Your task to perform on an android device: clear all cookies in the chrome app Image 0: 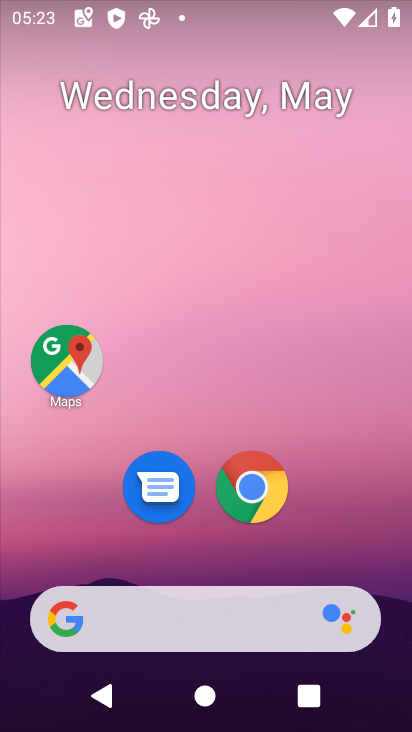
Step 0: click (257, 487)
Your task to perform on an android device: clear all cookies in the chrome app Image 1: 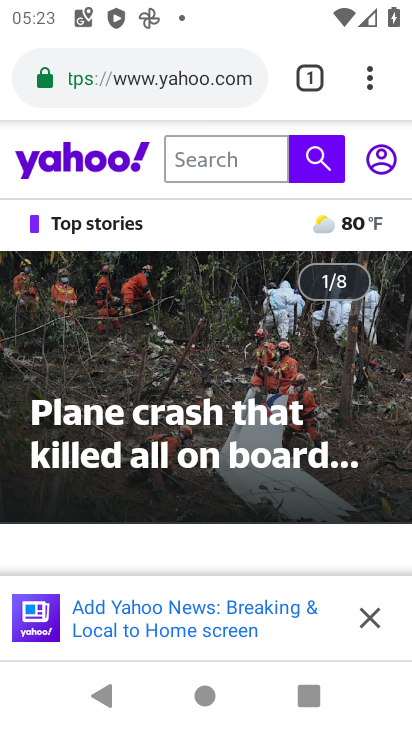
Step 1: click (377, 98)
Your task to perform on an android device: clear all cookies in the chrome app Image 2: 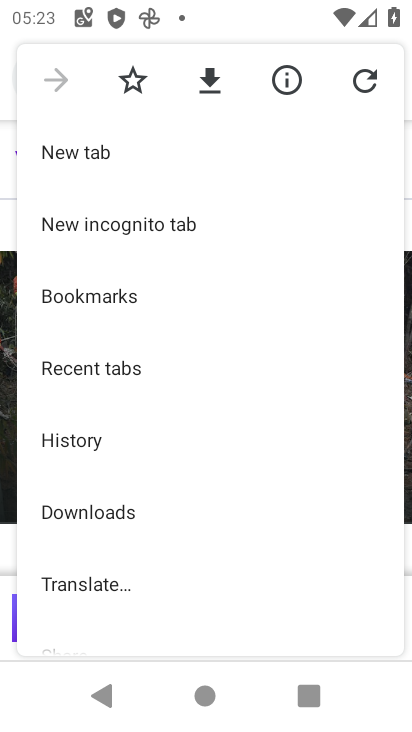
Step 2: drag from (179, 542) to (191, 428)
Your task to perform on an android device: clear all cookies in the chrome app Image 3: 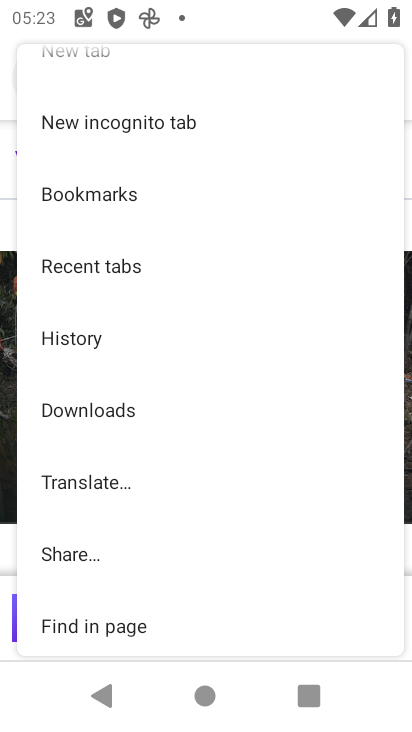
Step 3: click (208, 331)
Your task to perform on an android device: clear all cookies in the chrome app Image 4: 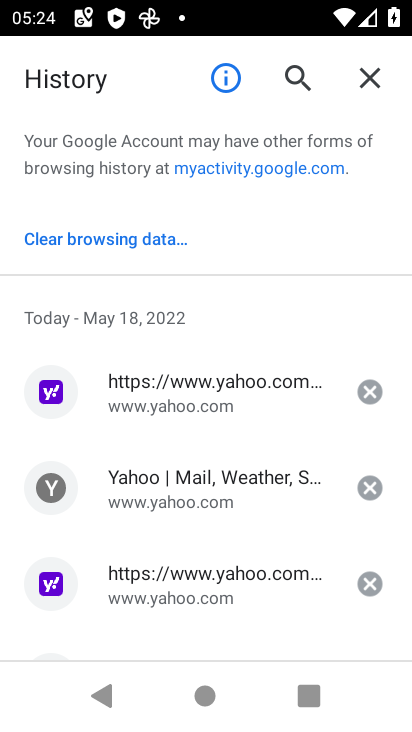
Step 4: click (105, 242)
Your task to perform on an android device: clear all cookies in the chrome app Image 5: 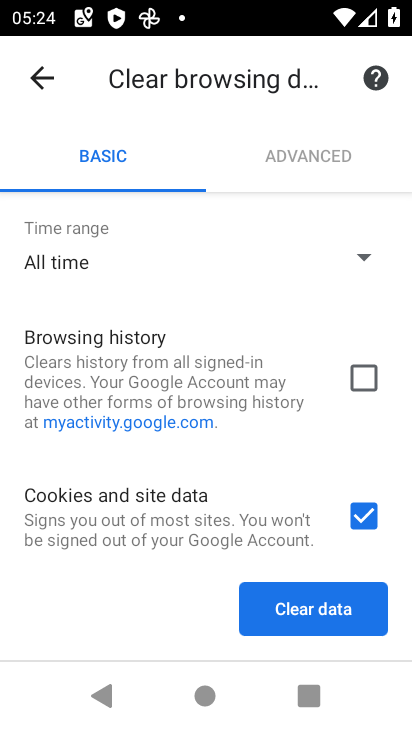
Step 5: click (320, 598)
Your task to perform on an android device: clear all cookies in the chrome app Image 6: 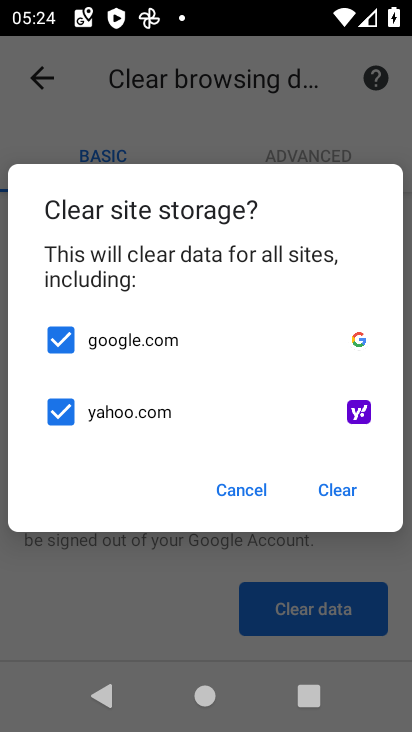
Step 6: click (331, 493)
Your task to perform on an android device: clear all cookies in the chrome app Image 7: 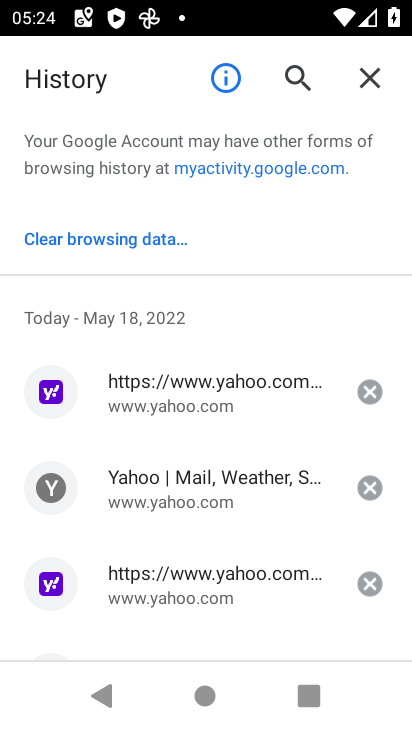
Step 7: task complete